Your task to perform on an android device: Search for Mexican restaurants on Maps Image 0: 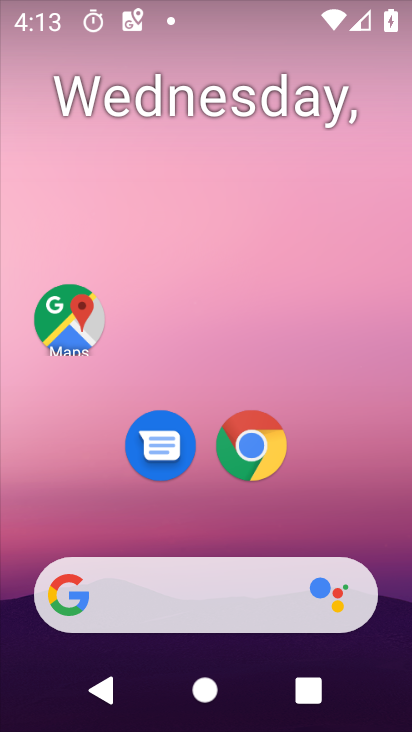
Step 0: click (77, 316)
Your task to perform on an android device: Search for Mexican restaurants on Maps Image 1: 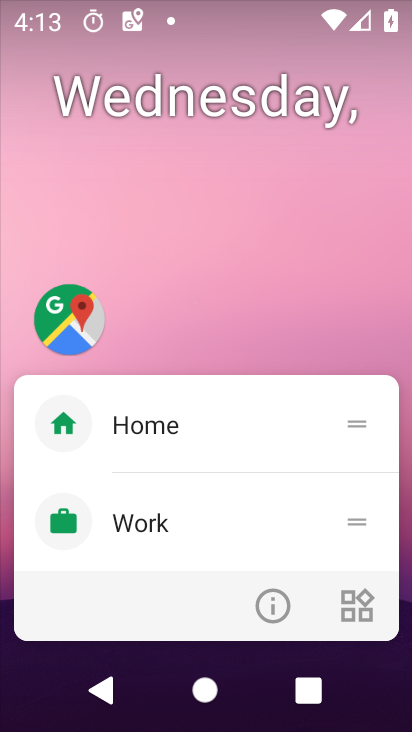
Step 1: click (181, 256)
Your task to perform on an android device: Search for Mexican restaurants on Maps Image 2: 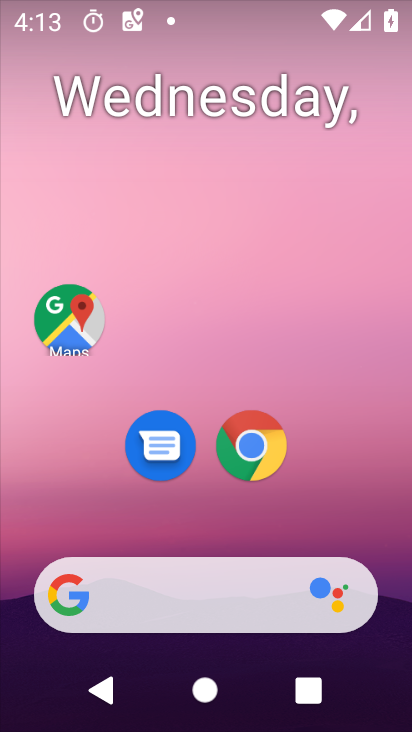
Step 2: click (76, 320)
Your task to perform on an android device: Search for Mexican restaurants on Maps Image 3: 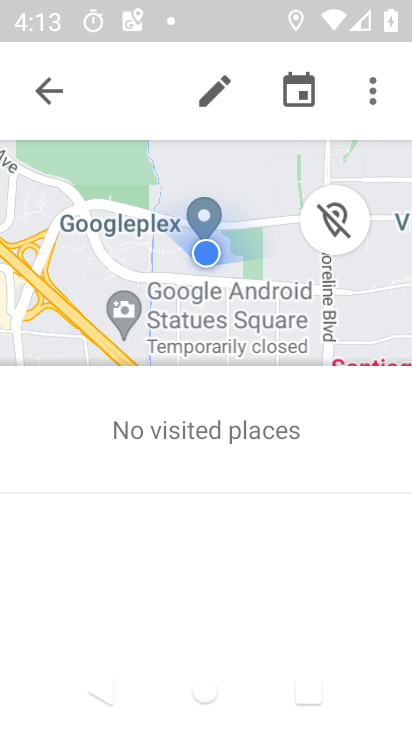
Step 3: press back button
Your task to perform on an android device: Search for Mexican restaurants on Maps Image 4: 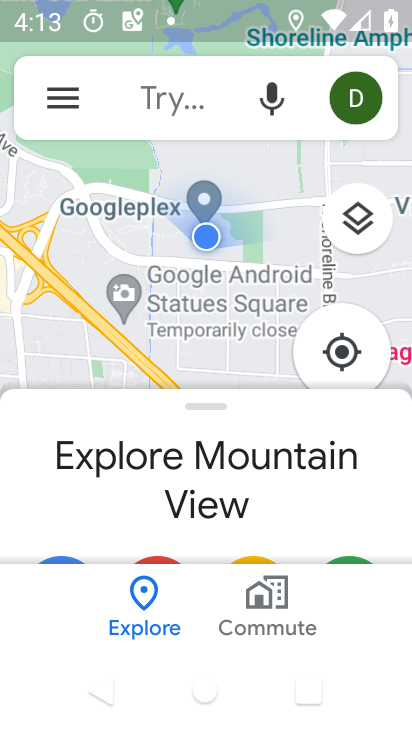
Step 4: click (202, 98)
Your task to perform on an android device: Search for Mexican restaurants on Maps Image 5: 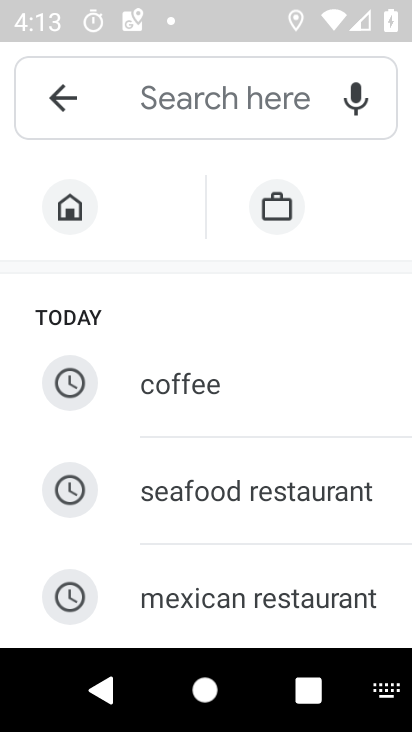
Step 5: click (265, 571)
Your task to perform on an android device: Search for Mexican restaurants on Maps Image 6: 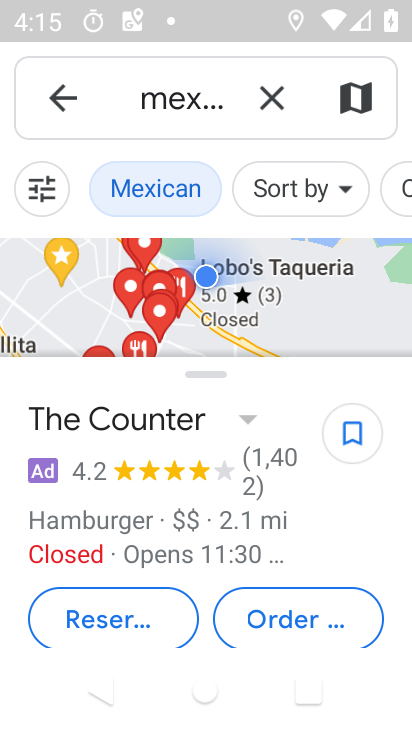
Step 6: task complete